Your task to perform on an android device: star an email in the gmail app Image 0: 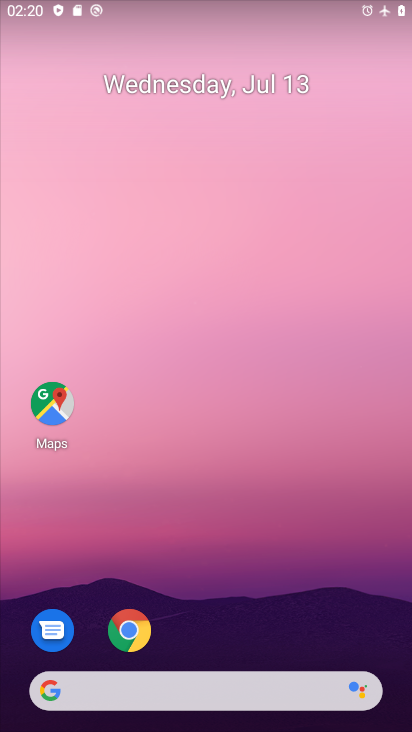
Step 0: drag from (226, 630) to (278, 176)
Your task to perform on an android device: star an email in the gmail app Image 1: 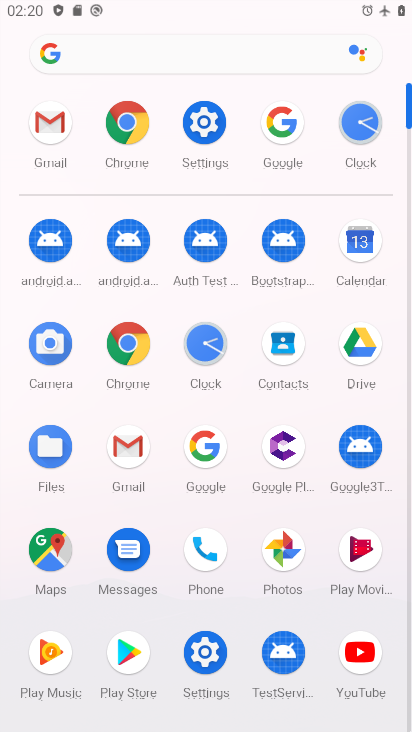
Step 1: click (56, 119)
Your task to perform on an android device: star an email in the gmail app Image 2: 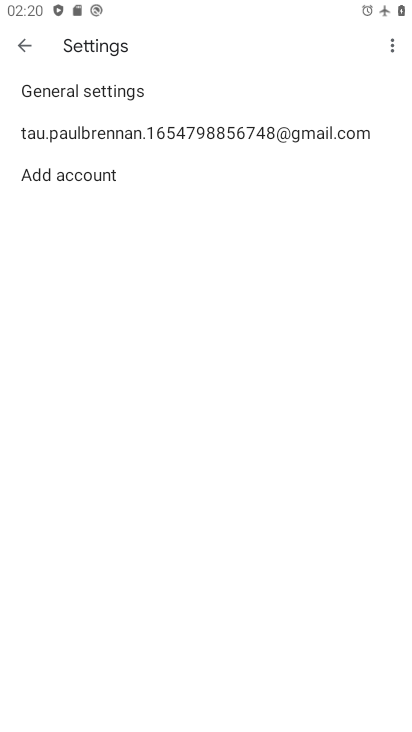
Step 2: click (26, 49)
Your task to perform on an android device: star an email in the gmail app Image 3: 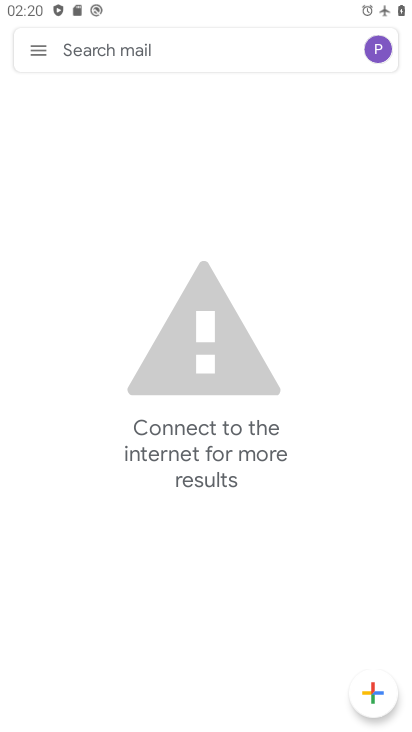
Step 3: click (64, 53)
Your task to perform on an android device: star an email in the gmail app Image 4: 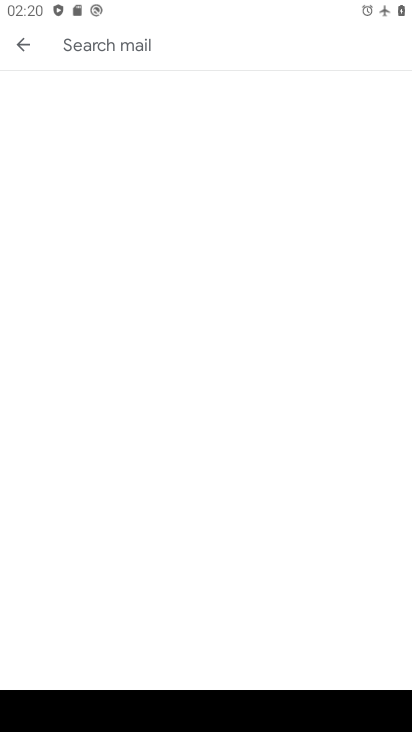
Step 4: click (46, 43)
Your task to perform on an android device: star an email in the gmail app Image 5: 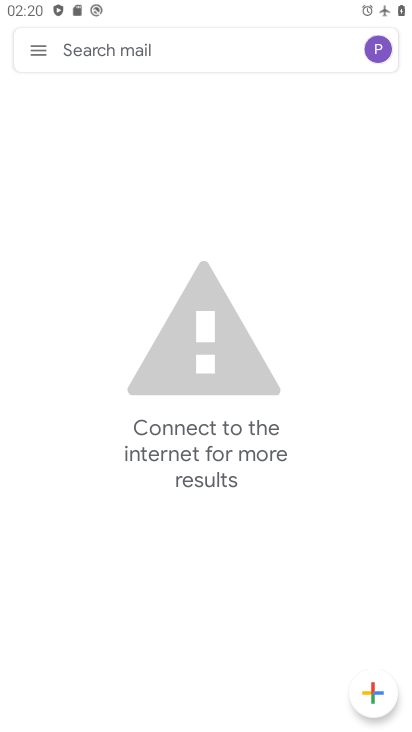
Step 5: task complete